Your task to perform on an android device: Open notification settings Image 0: 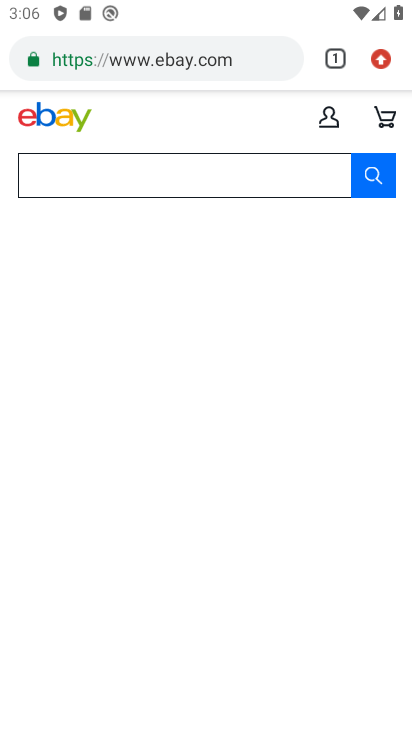
Step 0: press home button
Your task to perform on an android device: Open notification settings Image 1: 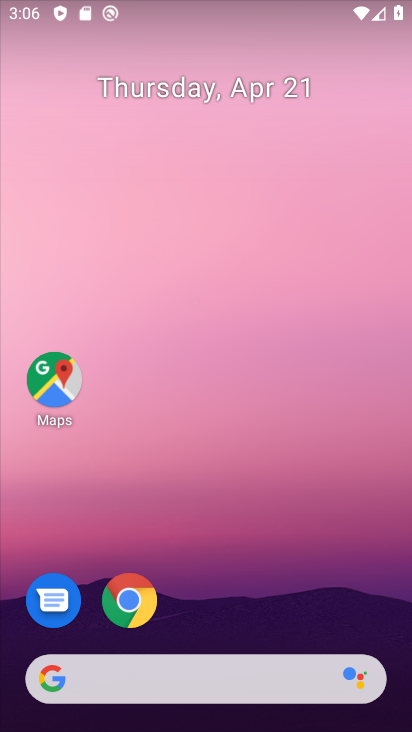
Step 1: drag from (242, 617) to (306, 97)
Your task to perform on an android device: Open notification settings Image 2: 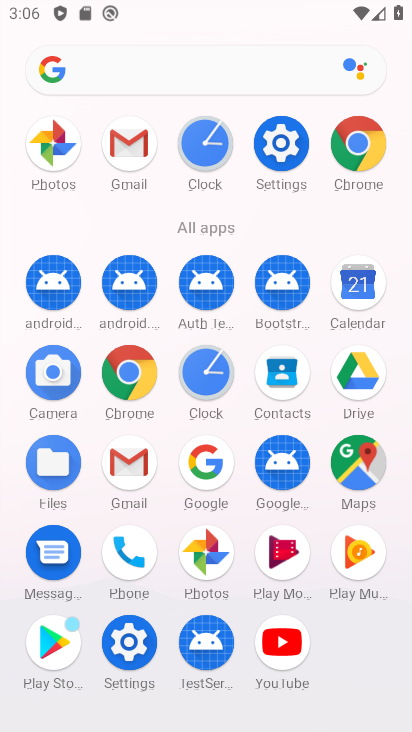
Step 2: click (278, 136)
Your task to perform on an android device: Open notification settings Image 3: 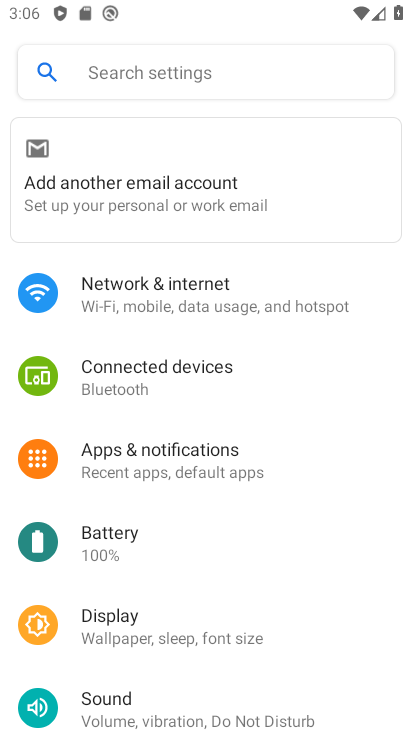
Step 3: click (226, 461)
Your task to perform on an android device: Open notification settings Image 4: 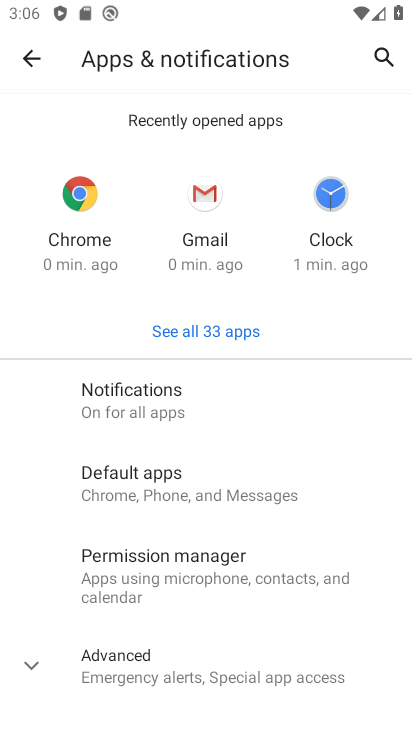
Step 4: click (156, 405)
Your task to perform on an android device: Open notification settings Image 5: 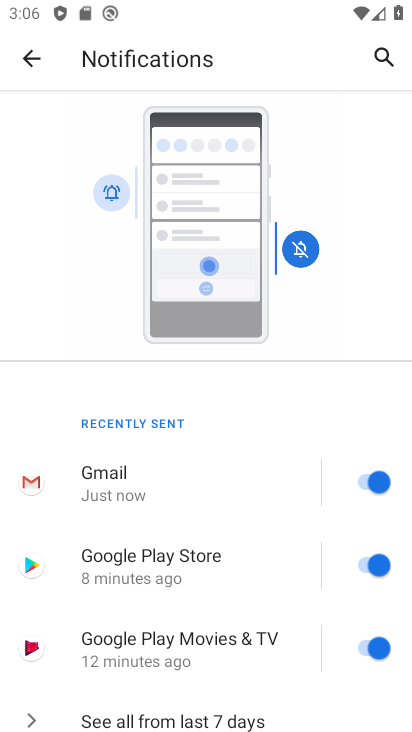
Step 5: task complete